Your task to perform on an android device: change alarm snooze length Image 0: 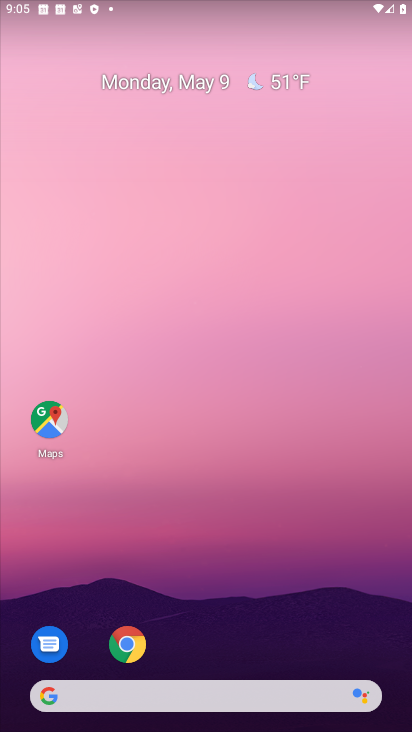
Step 0: drag from (237, 672) to (196, 30)
Your task to perform on an android device: change alarm snooze length Image 1: 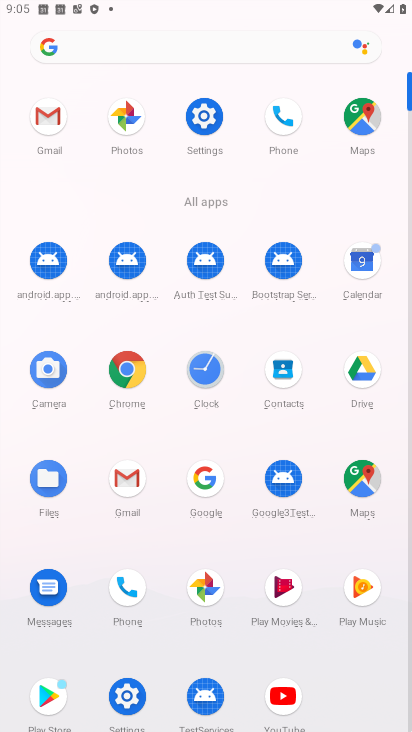
Step 1: click (191, 365)
Your task to perform on an android device: change alarm snooze length Image 2: 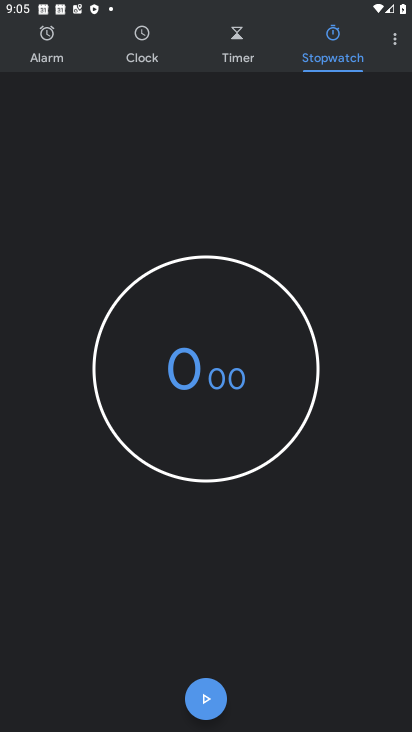
Step 2: click (399, 36)
Your task to perform on an android device: change alarm snooze length Image 3: 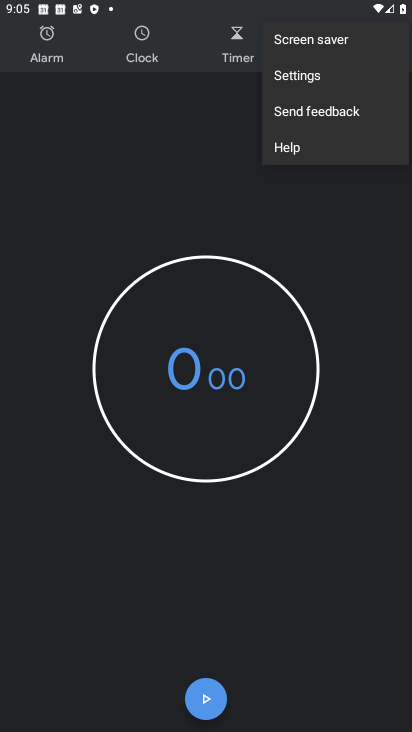
Step 3: click (307, 78)
Your task to perform on an android device: change alarm snooze length Image 4: 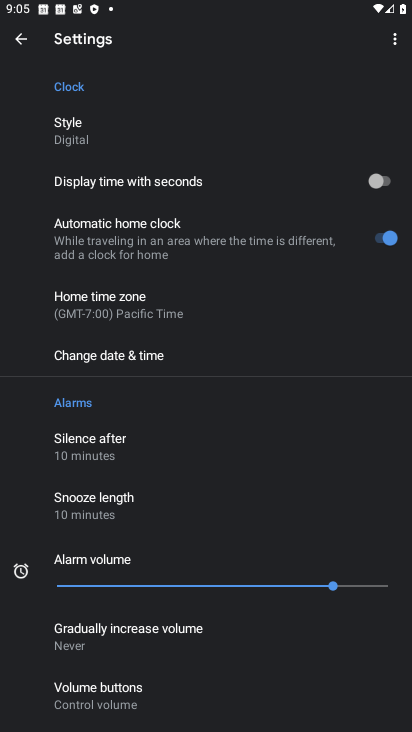
Step 4: click (94, 500)
Your task to perform on an android device: change alarm snooze length Image 5: 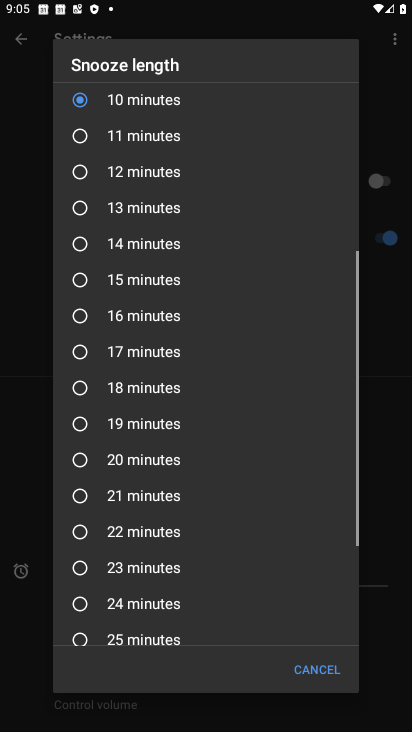
Step 5: click (80, 130)
Your task to perform on an android device: change alarm snooze length Image 6: 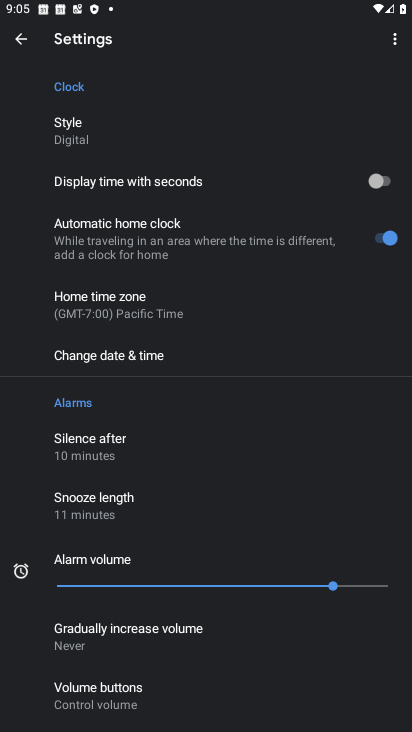
Step 6: task complete